Your task to perform on an android device: Go to eBay Image 0: 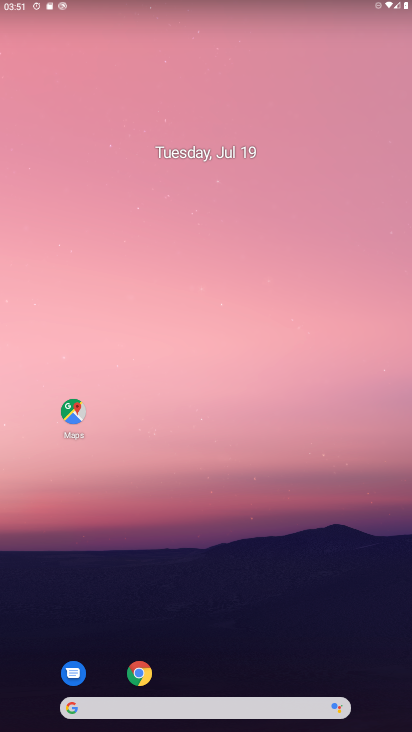
Step 0: click (147, 671)
Your task to perform on an android device: Go to eBay Image 1: 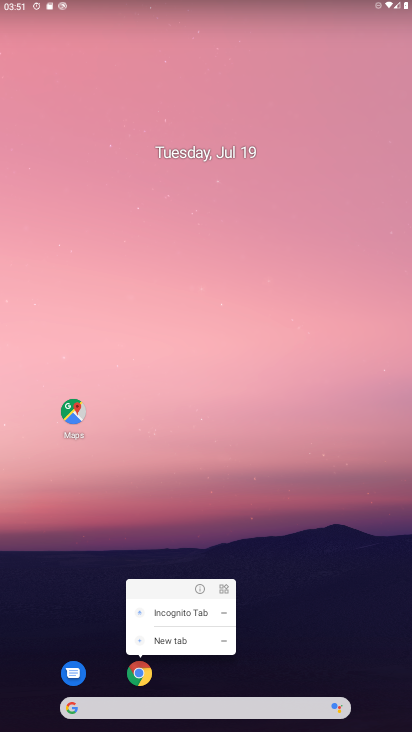
Step 1: click (140, 675)
Your task to perform on an android device: Go to eBay Image 2: 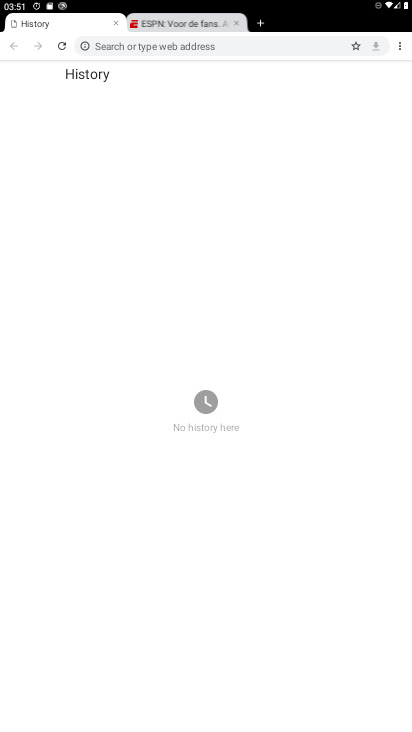
Step 2: click (40, 20)
Your task to perform on an android device: Go to eBay Image 3: 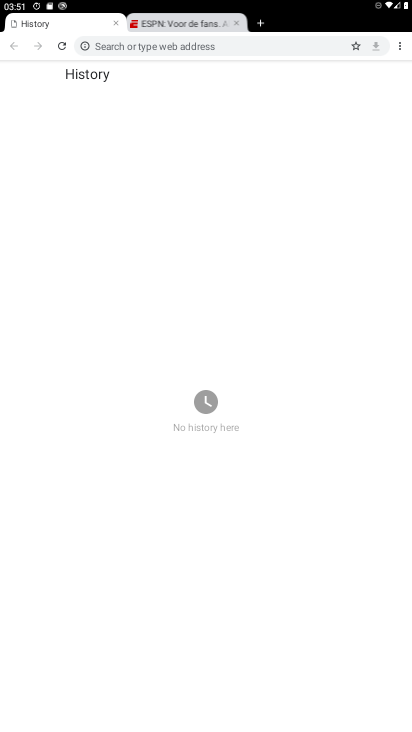
Step 3: click (261, 24)
Your task to perform on an android device: Go to eBay Image 4: 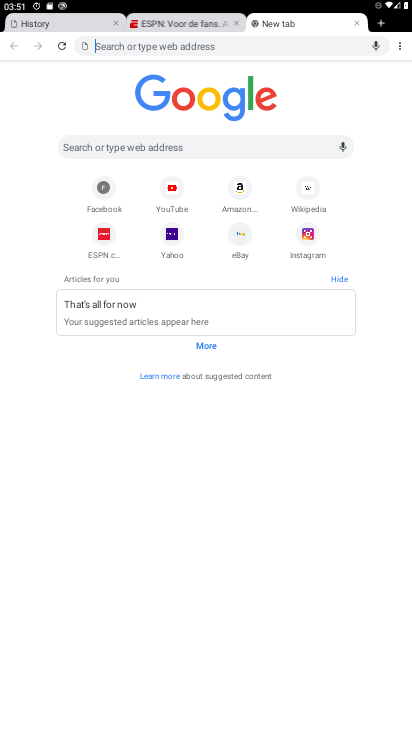
Step 4: click (112, 20)
Your task to perform on an android device: Go to eBay Image 5: 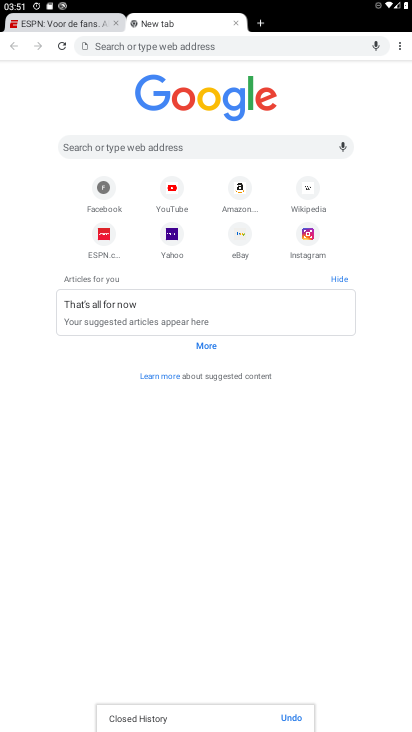
Step 5: click (110, 22)
Your task to perform on an android device: Go to eBay Image 6: 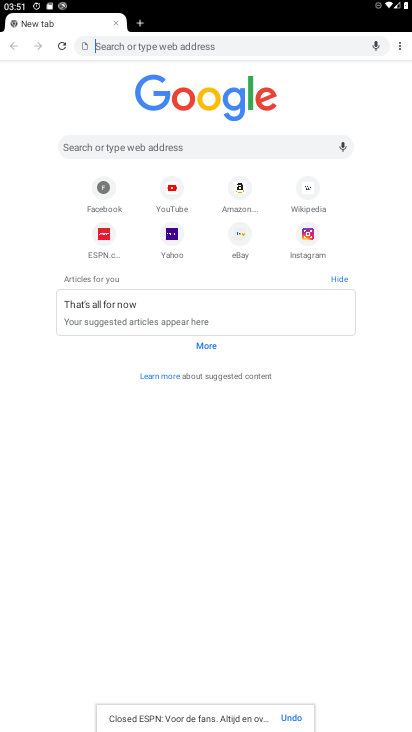
Step 6: click (240, 254)
Your task to perform on an android device: Go to eBay Image 7: 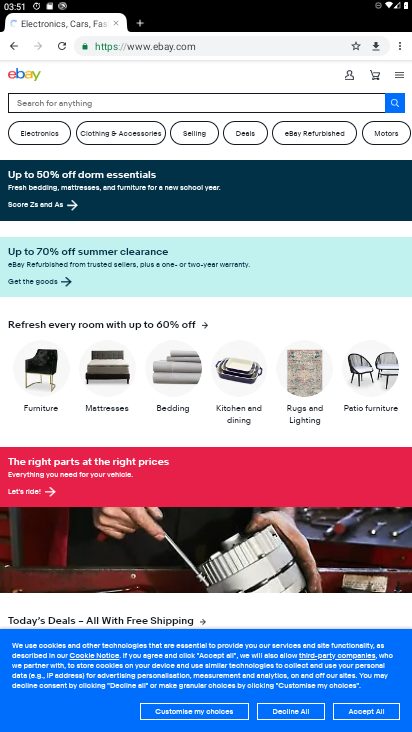
Step 7: task complete